Your task to perform on an android device: turn on data saver in the chrome app Image 0: 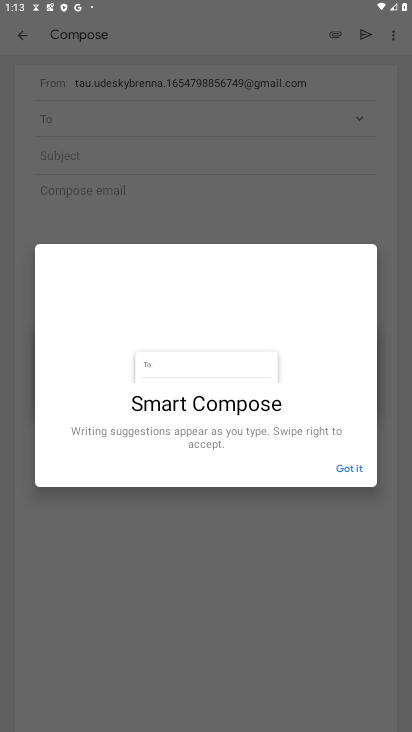
Step 0: click (182, 245)
Your task to perform on an android device: turn on data saver in the chrome app Image 1: 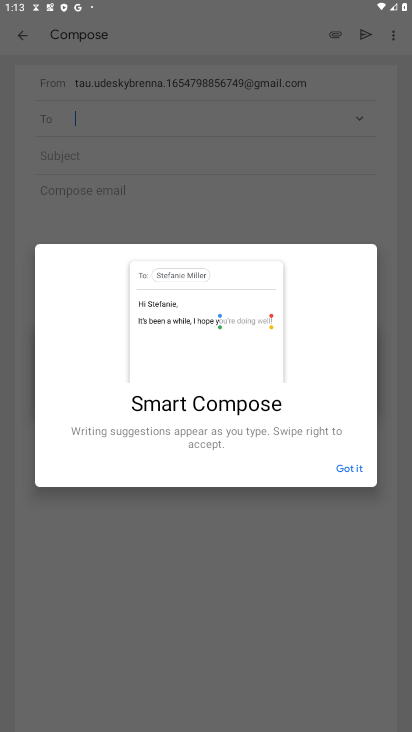
Step 1: press home button
Your task to perform on an android device: turn on data saver in the chrome app Image 2: 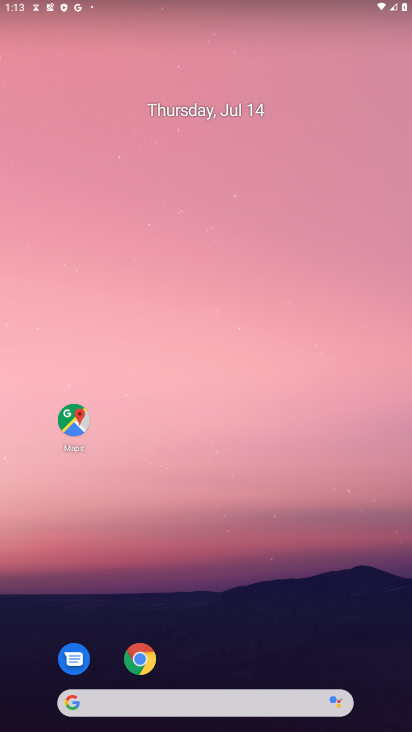
Step 2: click (148, 662)
Your task to perform on an android device: turn on data saver in the chrome app Image 3: 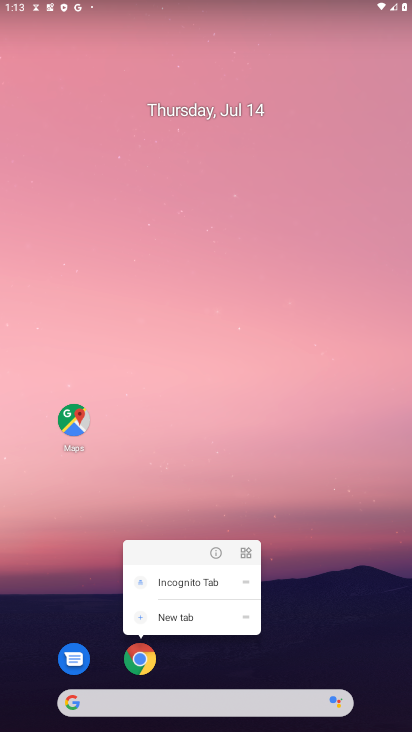
Step 3: click (140, 666)
Your task to perform on an android device: turn on data saver in the chrome app Image 4: 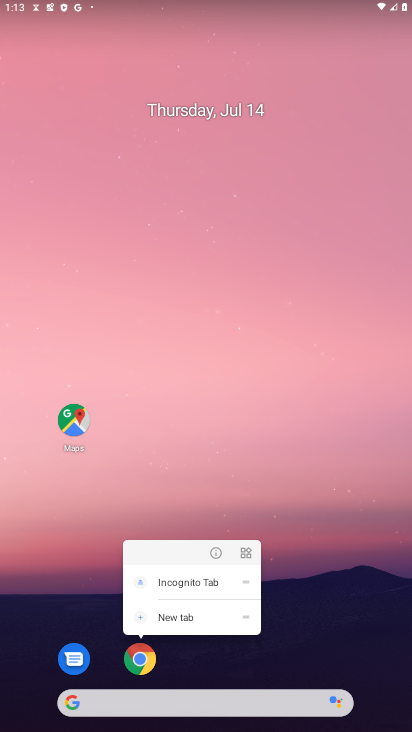
Step 4: click (142, 660)
Your task to perform on an android device: turn on data saver in the chrome app Image 5: 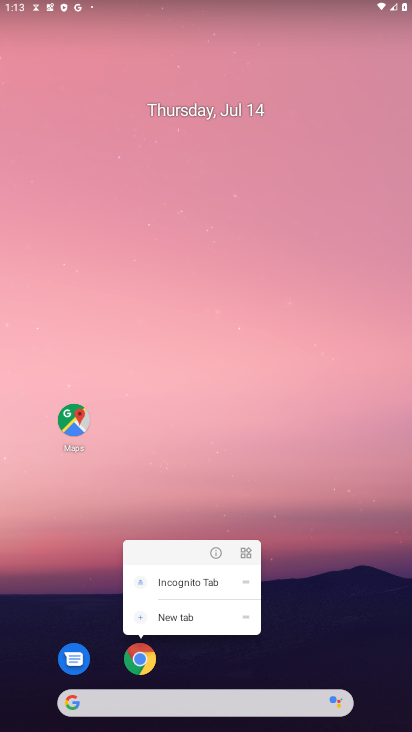
Step 5: task complete